Your task to perform on an android device: Go to sound settings Image 0: 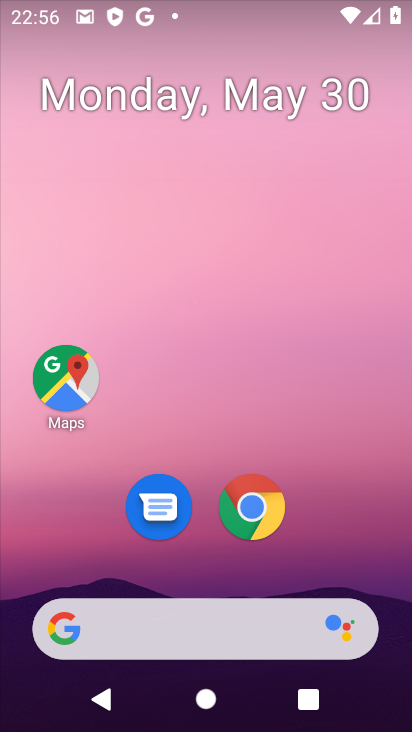
Step 0: drag from (379, 571) to (353, 86)
Your task to perform on an android device: Go to sound settings Image 1: 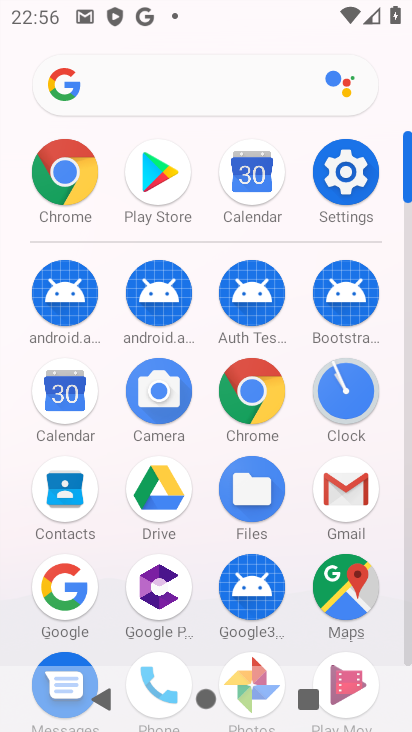
Step 1: click (343, 182)
Your task to perform on an android device: Go to sound settings Image 2: 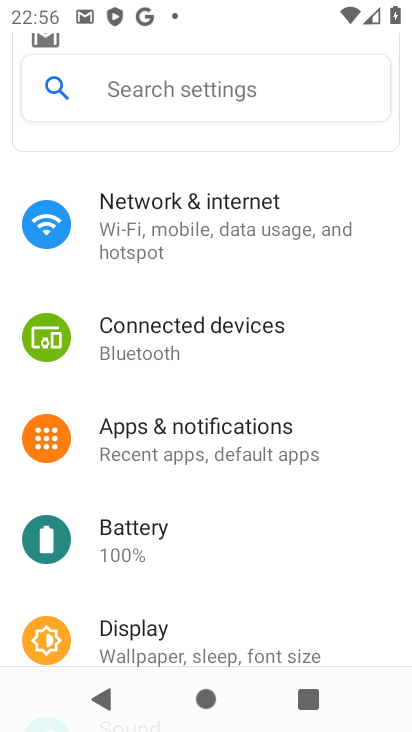
Step 2: drag from (345, 530) to (354, 287)
Your task to perform on an android device: Go to sound settings Image 3: 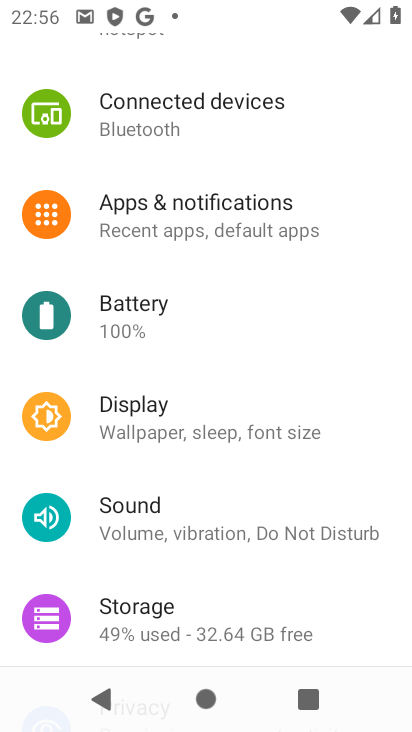
Step 3: drag from (340, 544) to (354, 292)
Your task to perform on an android device: Go to sound settings Image 4: 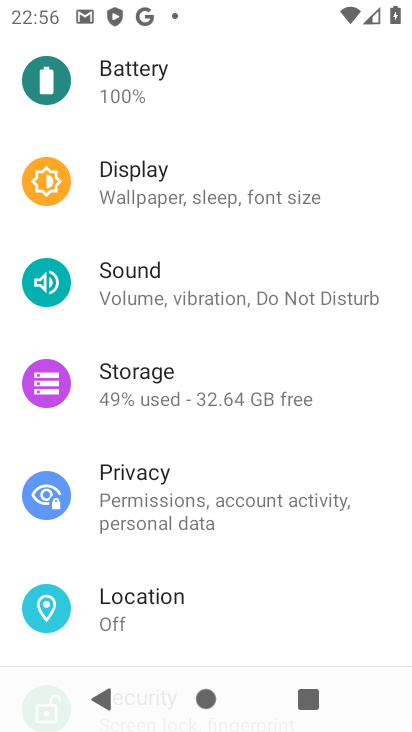
Step 4: drag from (340, 587) to (358, 377)
Your task to perform on an android device: Go to sound settings Image 5: 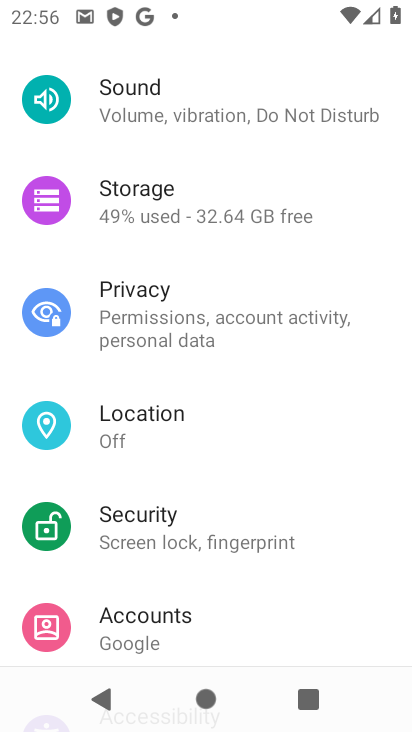
Step 5: drag from (358, 597) to (358, 422)
Your task to perform on an android device: Go to sound settings Image 6: 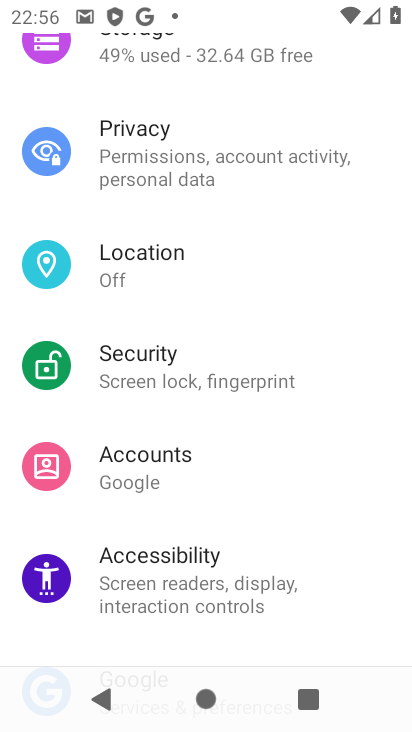
Step 6: drag from (350, 603) to (348, 294)
Your task to perform on an android device: Go to sound settings Image 7: 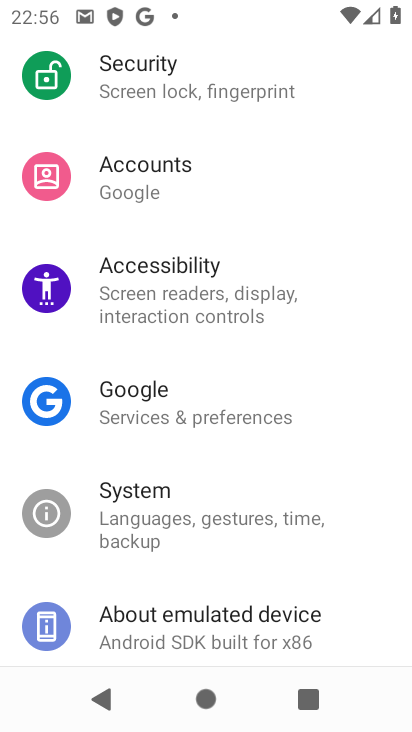
Step 7: drag from (345, 208) to (352, 396)
Your task to perform on an android device: Go to sound settings Image 8: 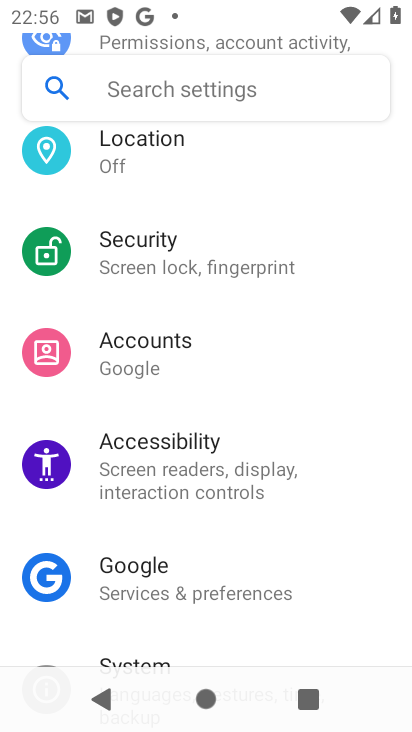
Step 8: drag from (352, 271) to (372, 431)
Your task to perform on an android device: Go to sound settings Image 9: 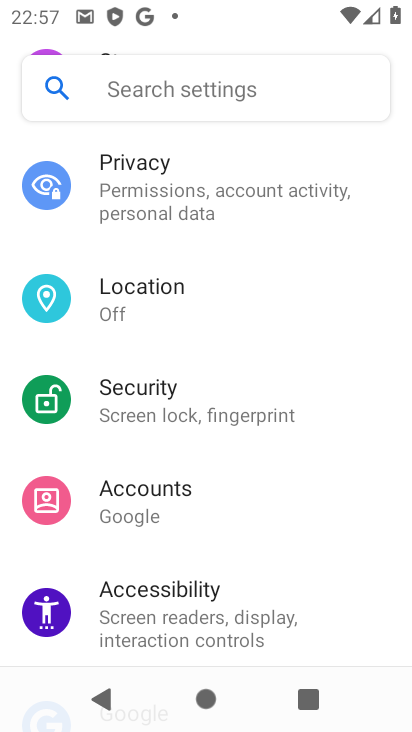
Step 9: drag from (346, 271) to (350, 446)
Your task to perform on an android device: Go to sound settings Image 10: 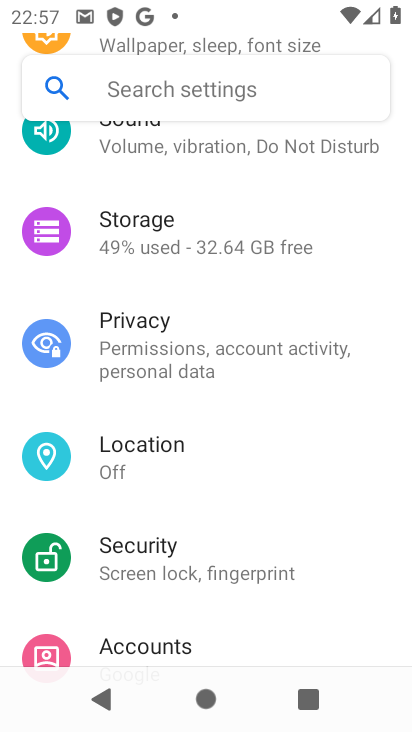
Step 10: drag from (344, 258) to (354, 441)
Your task to perform on an android device: Go to sound settings Image 11: 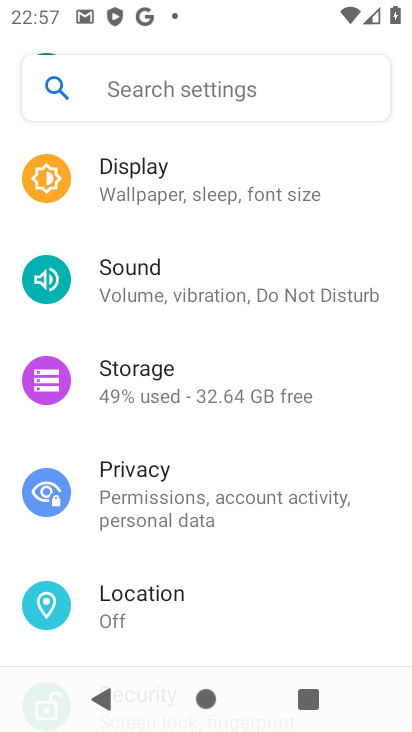
Step 11: drag from (351, 331) to (364, 429)
Your task to perform on an android device: Go to sound settings Image 12: 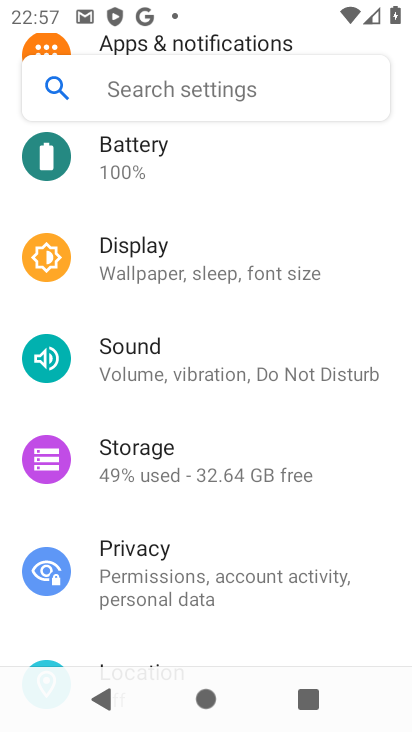
Step 12: click (294, 380)
Your task to perform on an android device: Go to sound settings Image 13: 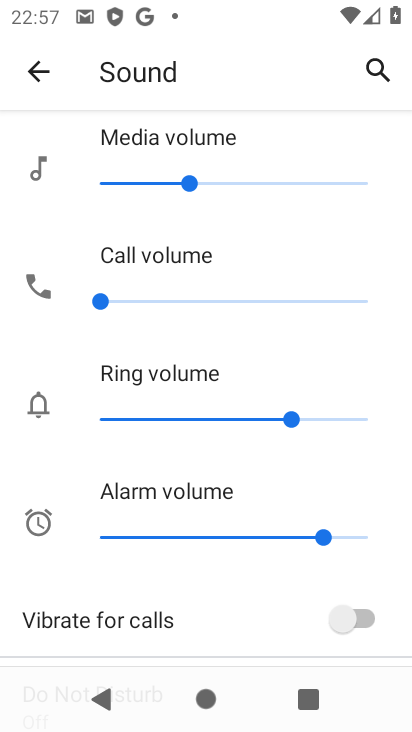
Step 13: task complete